Your task to perform on an android device: Open Google Image 0: 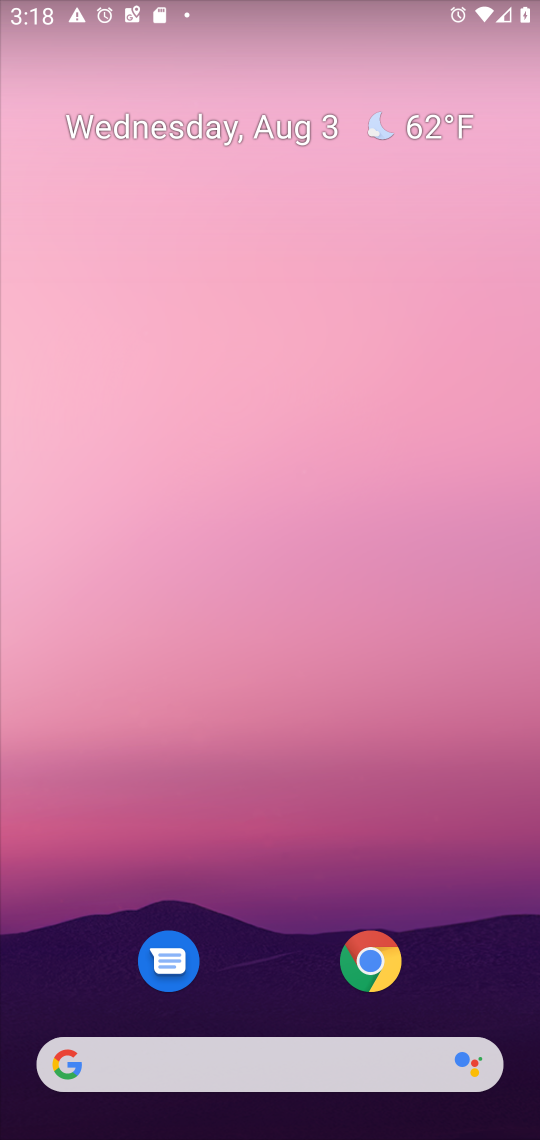
Step 0: drag from (267, 938) to (219, 33)
Your task to perform on an android device: Open Google Image 1: 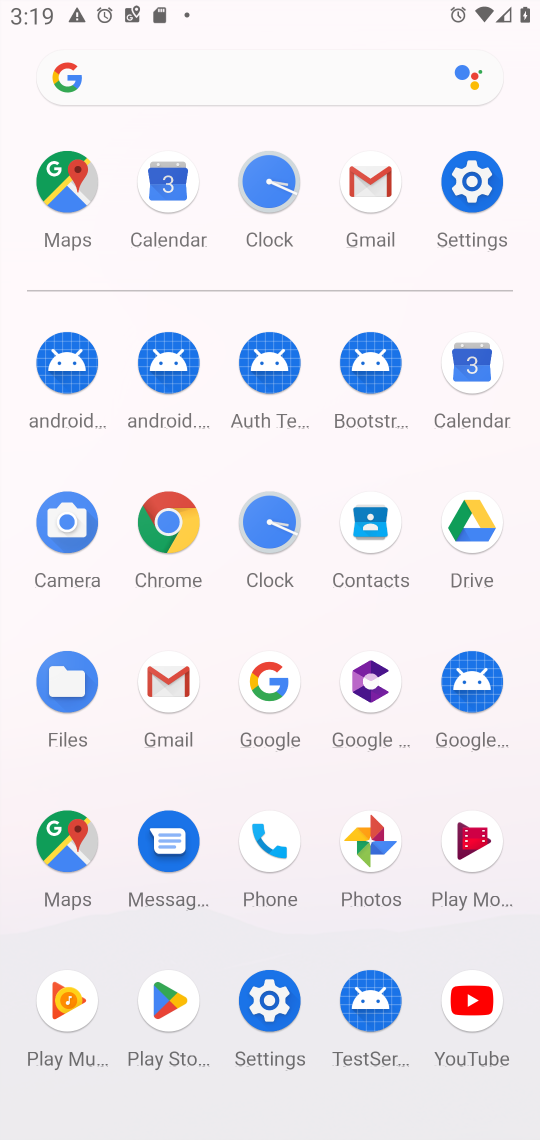
Step 1: click (262, 669)
Your task to perform on an android device: Open Google Image 2: 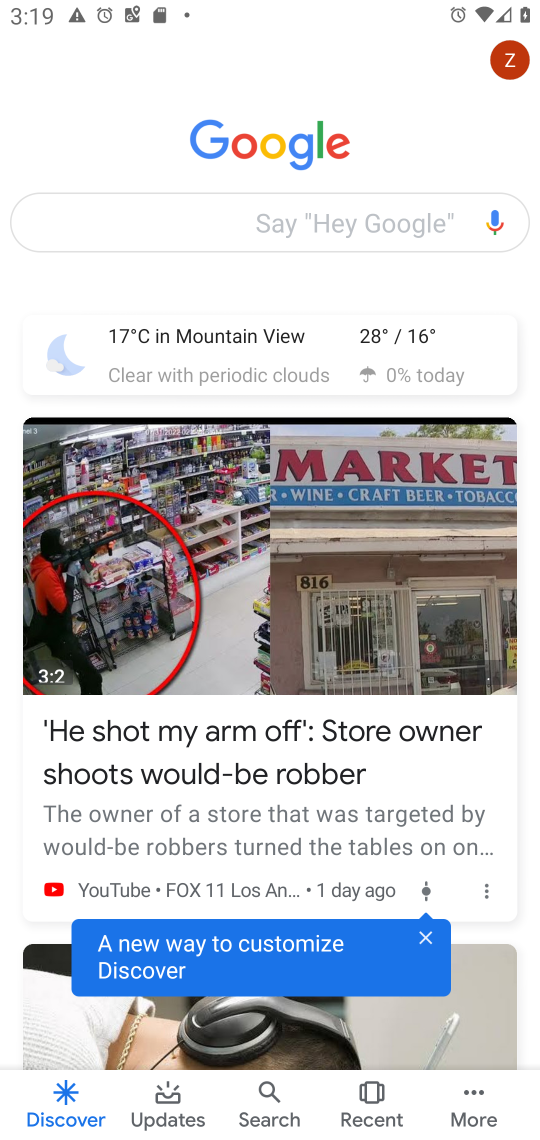
Step 2: task complete